Your task to perform on an android device: read, delete, or share a saved page in the chrome app Image 0: 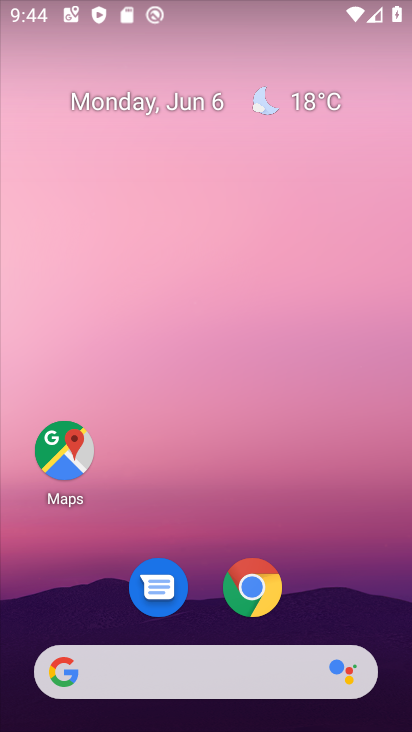
Step 0: click (255, 595)
Your task to perform on an android device: read, delete, or share a saved page in the chrome app Image 1: 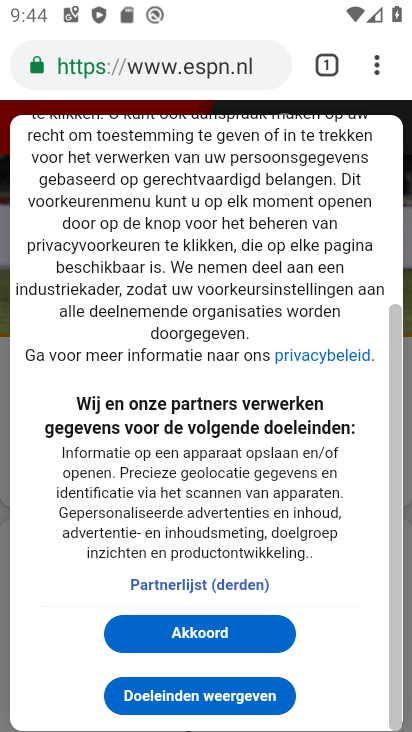
Step 1: click (374, 56)
Your task to perform on an android device: read, delete, or share a saved page in the chrome app Image 2: 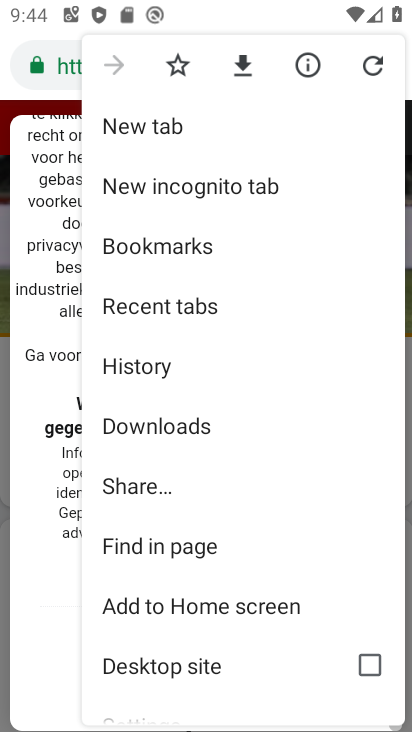
Step 2: drag from (293, 688) to (237, 218)
Your task to perform on an android device: read, delete, or share a saved page in the chrome app Image 3: 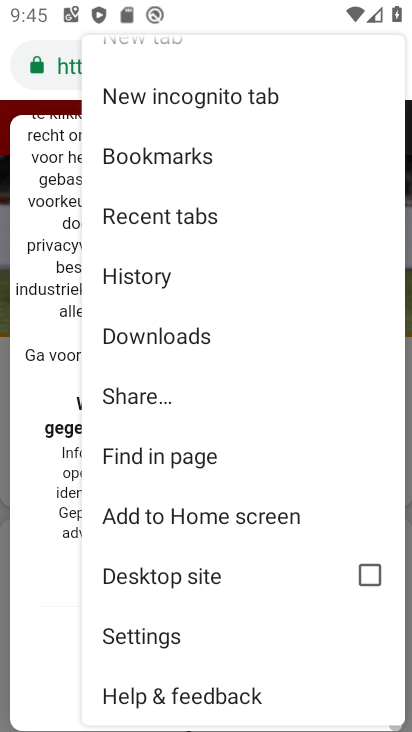
Step 3: click (170, 631)
Your task to perform on an android device: read, delete, or share a saved page in the chrome app Image 4: 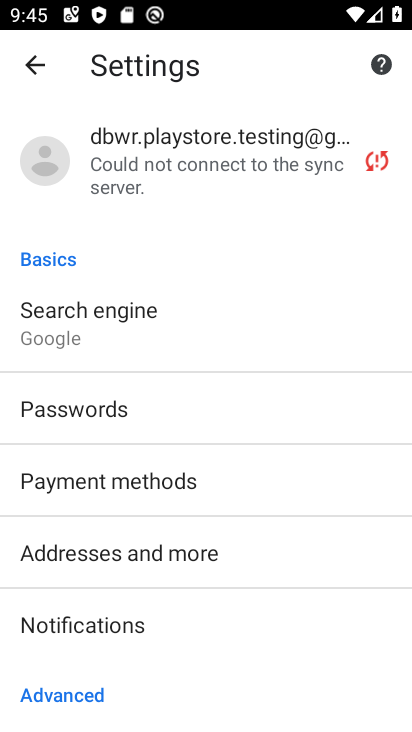
Step 4: drag from (201, 652) to (214, 237)
Your task to perform on an android device: read, delete, or share a saved page in the chrome app Image 5: 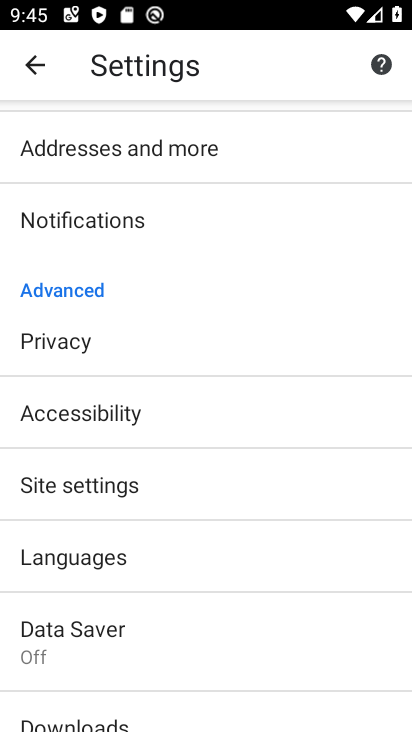
Step 5: drag from (265, 581) to (255, 163)
Your task to perform on an android device: read, delete, or share a saved page in the chrome app Image 6: 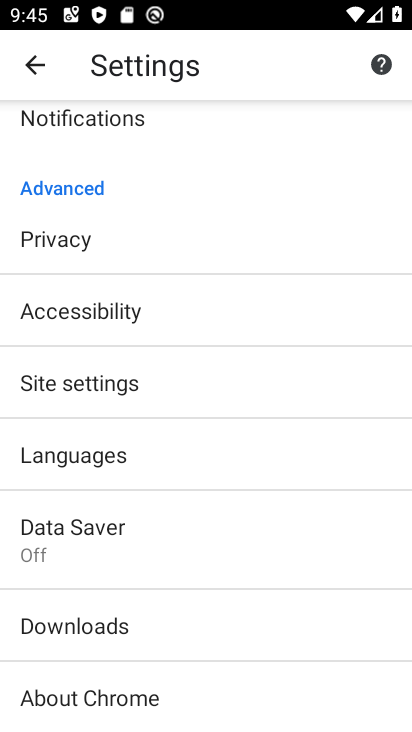
Step 6: click (151, 386)
Your task to perform on an android device: read, delete, or share a saved page in the chrome app Image 7: 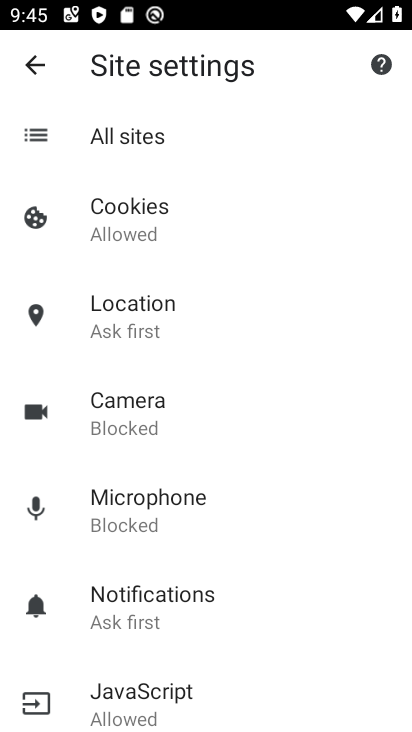
Step 7: task complete